Your task to perform on an android device: Open Yahoo.com Image 0: 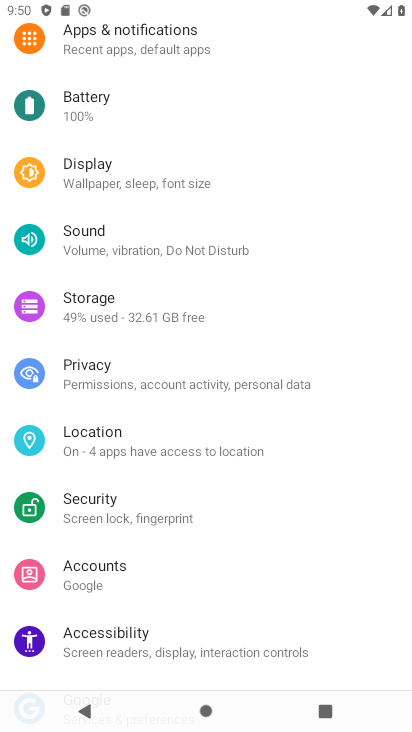
Step 0: press home button
Your task to perform on an android device: Open Yahoo.com Image 1: 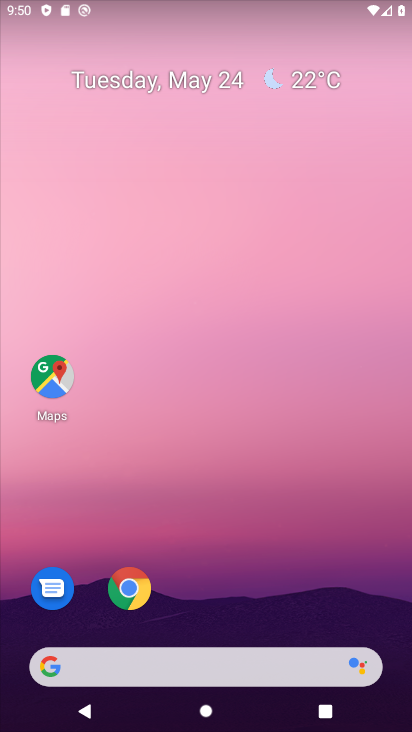
Step 1: click (133, 594)
Your task to perform on an android device: Open Yahoo.com Image 2: 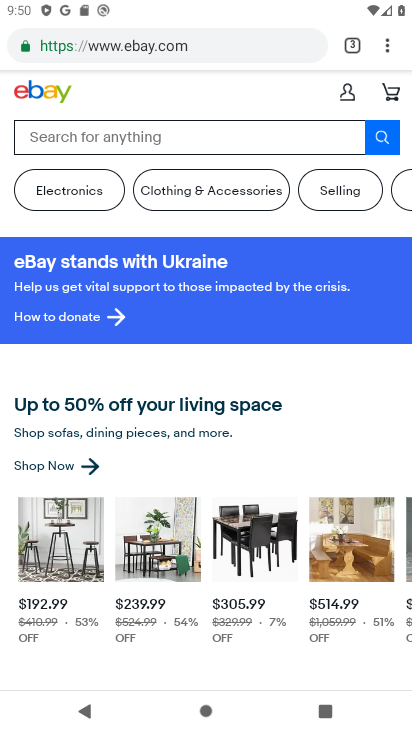
Step 2: click (352, 40)
Your task to perform on an android device: Open Yahoo.com Image 3: 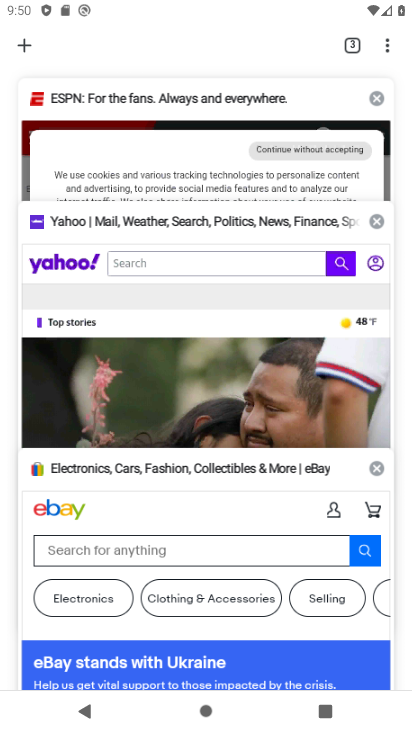
Step 3: click (134, 272)
Your task to perform on an android device: Open Yahoo.com Image 4: 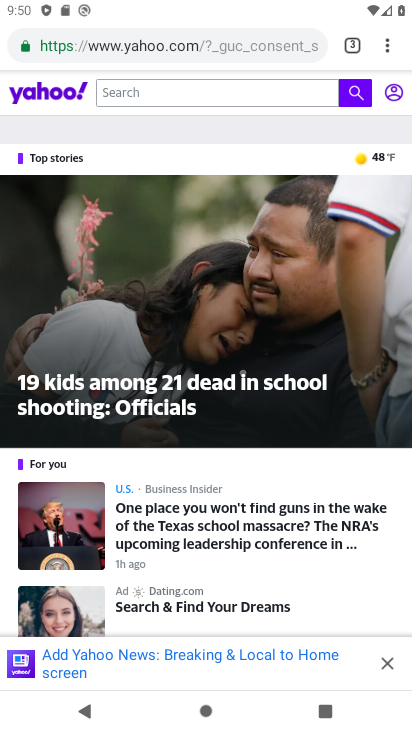
Step 4: task complete